Your task to perform on an android device: turn on sleep mode Image 0: 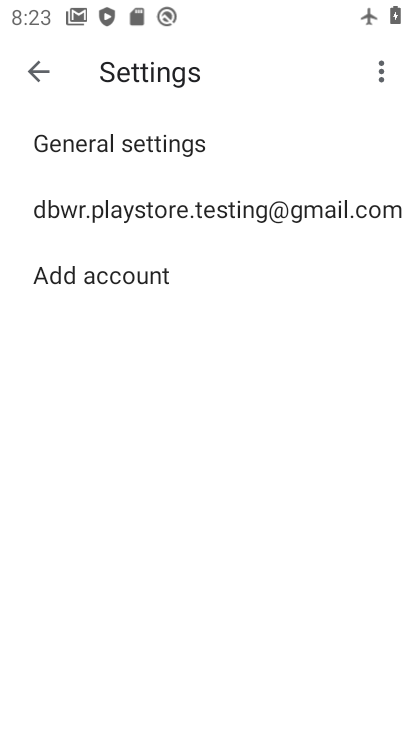
Step 0: press home button
Your task to perform on an android device: turn on sleep mode Image 1: 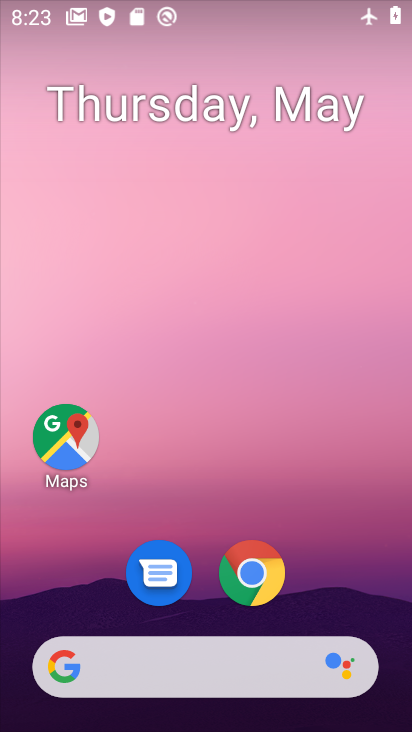
Step 1: drag from (269, 459) to (263, 68)
Your task to perform on an android device: turn on sleep mode Image 2: 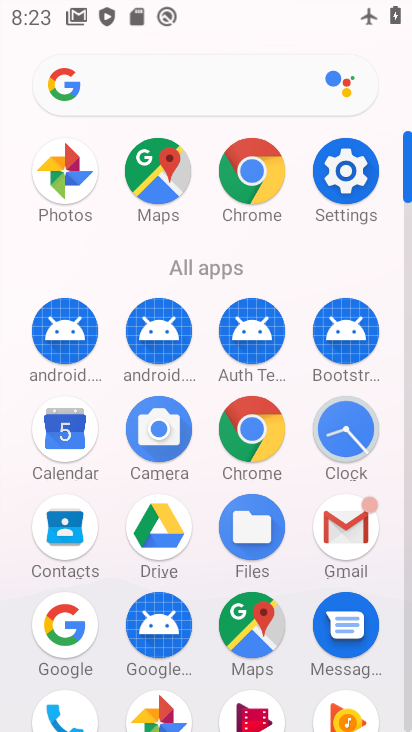
Step 2: click (355, 181)
Your task to perform on an android device: turn on sleep mode Image 3: 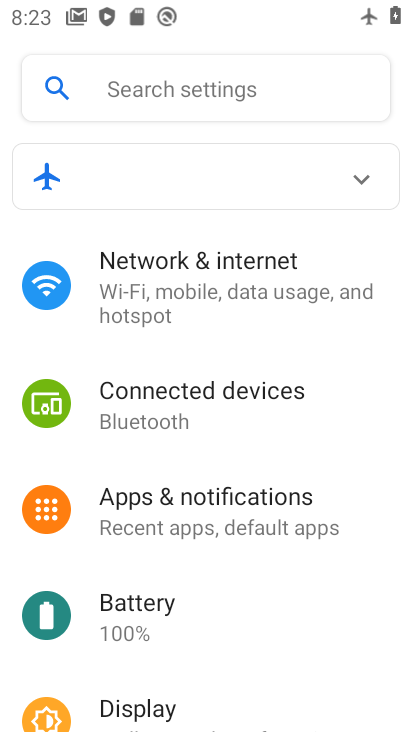
Step 3: drag from (220, 555) to (243, 226)
Your task to perform on an android device: turn on sleep mode Image 4: 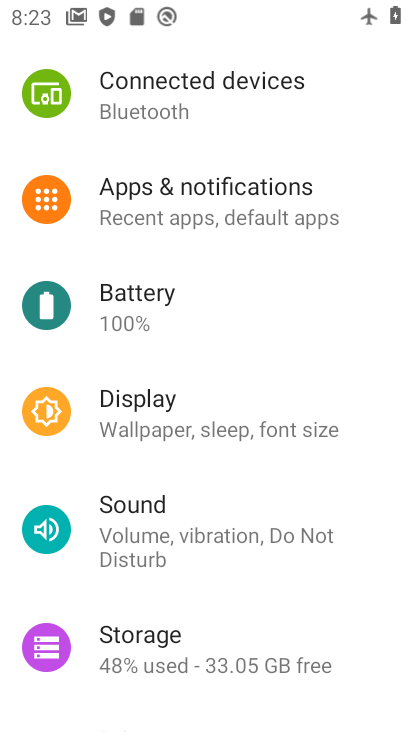
Step 4: click (193, 434)
Your task to perform on an android device: turn on sleep mode Image 5: 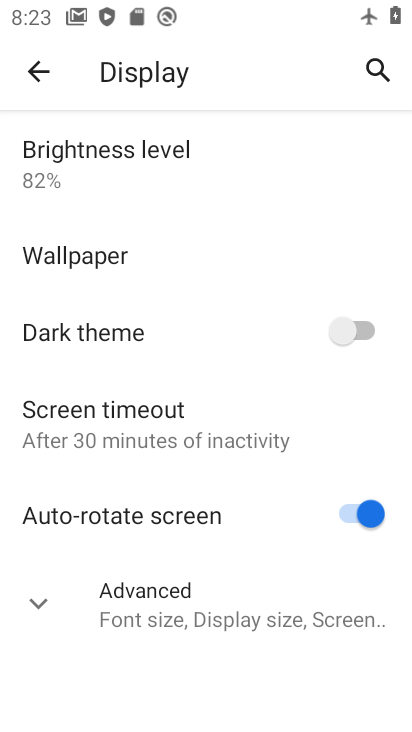
Step 5: click (49, 606)
Your task to perform on an android device: turn on sleep mode Image 6: 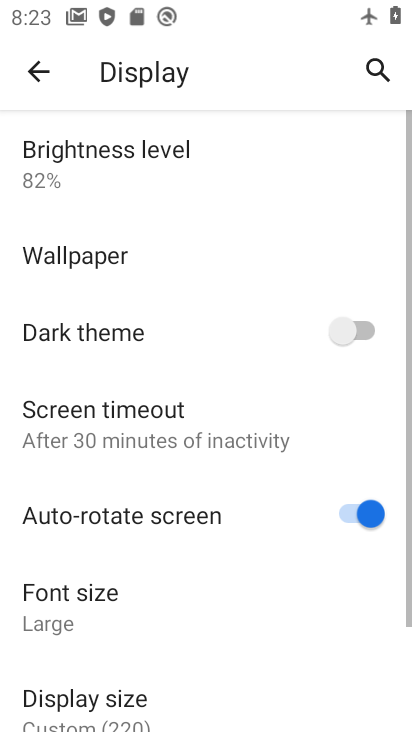
Step 6: task complete